Your task to perform on an android device: turn off sleep mode Image 0: 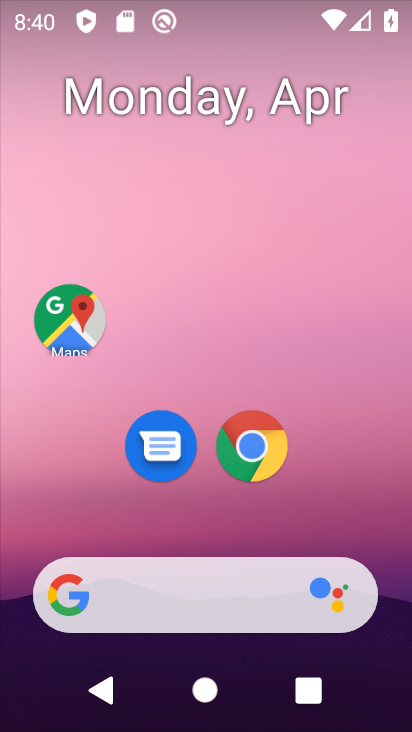
Step 0: drag from (354, 478) to (351, 25)
Your task to perform on an android device: turn off sleep mode Image 1: 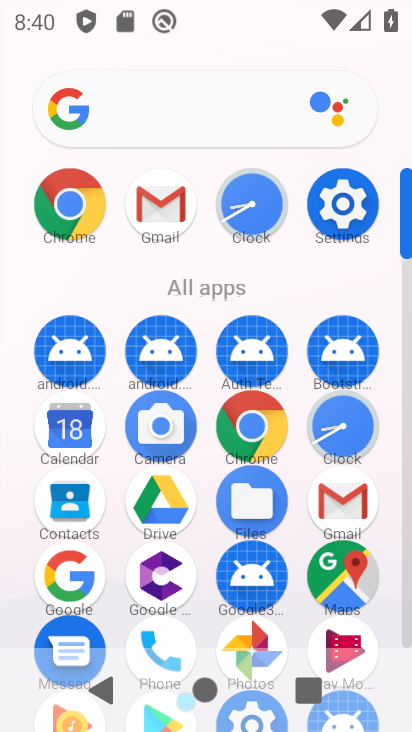
Step 1: click (344, 209)
Your task to perform on an android device: turn off sleep mode Image 2: 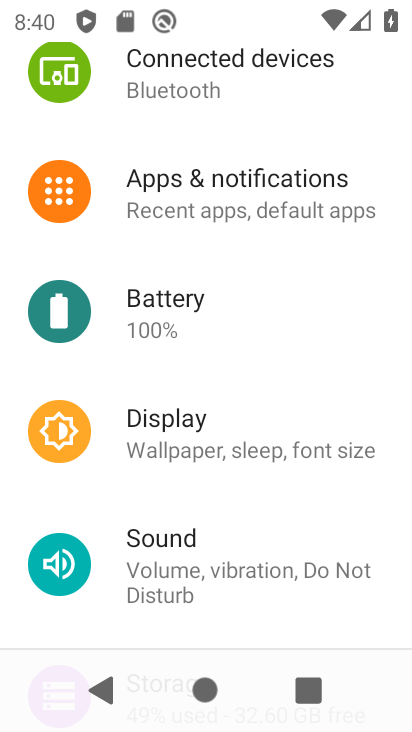
Step 2: click (307, 439)
Your task to perform on an android device: turn off sleep mode Image 3: 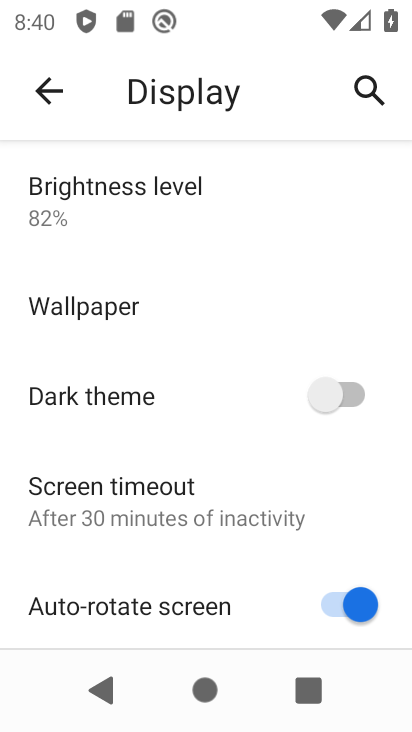
Step 3: drag from (279, 565) to (280, 230)
Your task to perform on an android device: turn off sleep mode Image 4: 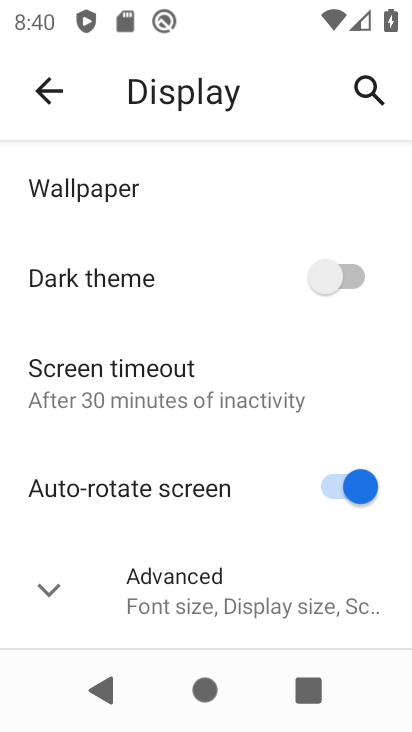
Step 4: click (234, 592)
Your task to perform on an android device: turn off sleep mode Image 5: 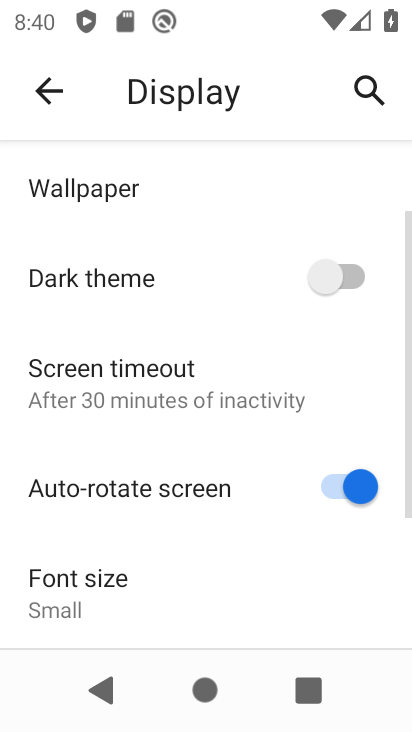
Step 5: task complete